Your task to perform on an android device: Open the Play Movies app and select the watchlist tab. Image 0: 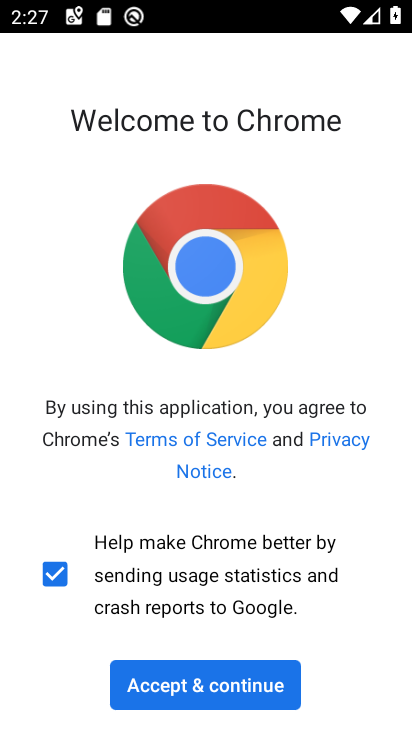
Step 0: press home button
Your task to perform on an android device: Open the Play Movies app and select the watchlist tab. Image 1: 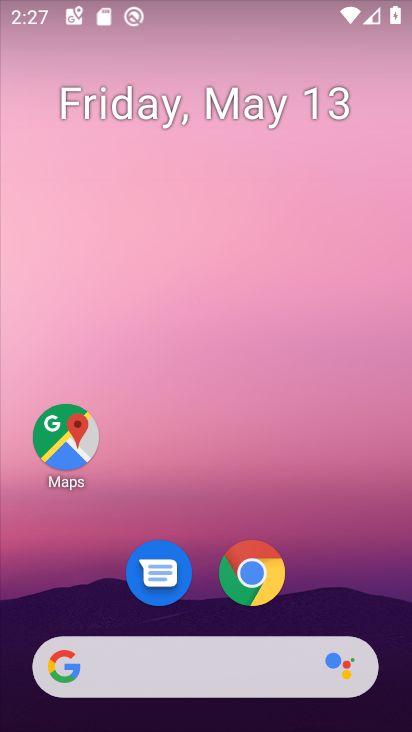
Step 1: drag from (343, 649) to (89, 6)
Your task to perform on an android device: Open the Play Movies app and select the watchlist tab. Image 2: 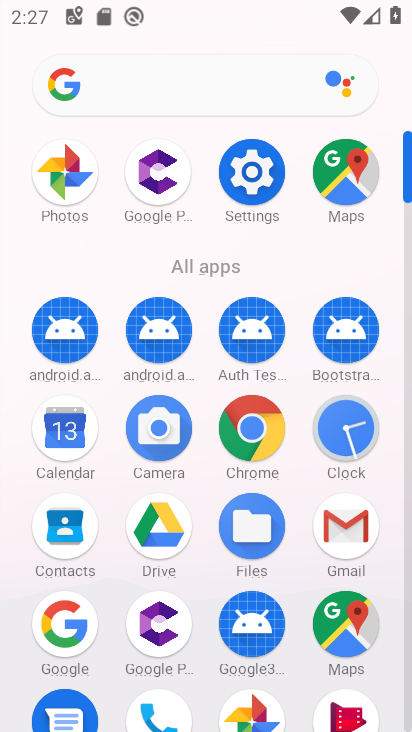
Step 2: drag from (280, 625) to (314, 254)
Your task to perform on an android device: Open the Play Movies app and select the watchlist tab. Image 3: 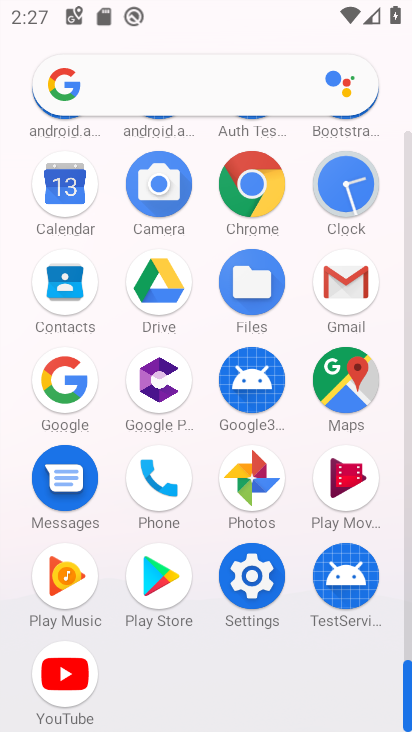
Step 3: click (349, 481)
Your task to perform on an android device: Open the Play Movies app and select the watchlist tab. Image 4: 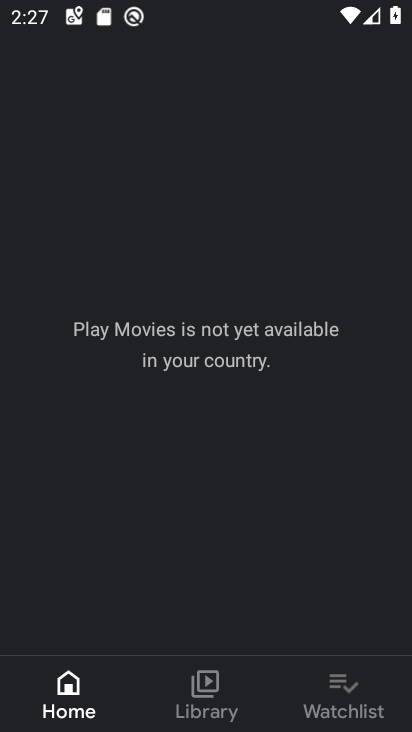
Step 4: click (343, 686)
Your task to perform on an android device: Open the Play Movies app and select the watchlist tab. Image 5: 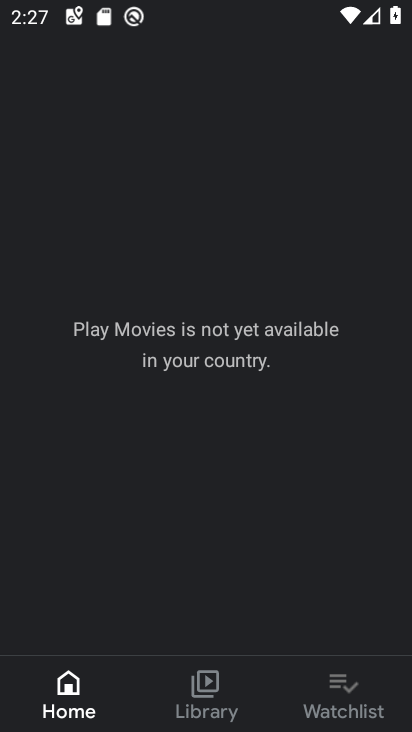
Step 5: click (343, 685)
Your task to perform on an android device: Open the Play Movies app and select the watchlist tab. Image 6: 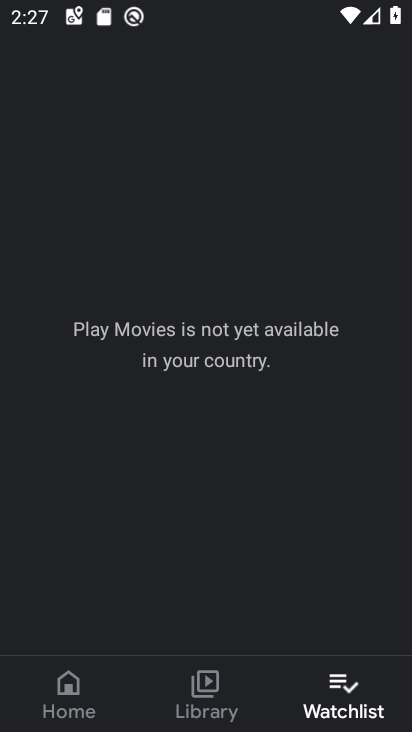
Step 6: task complete